Your task to perform on an android device: manage bookmarks in the chrome app Image 0: 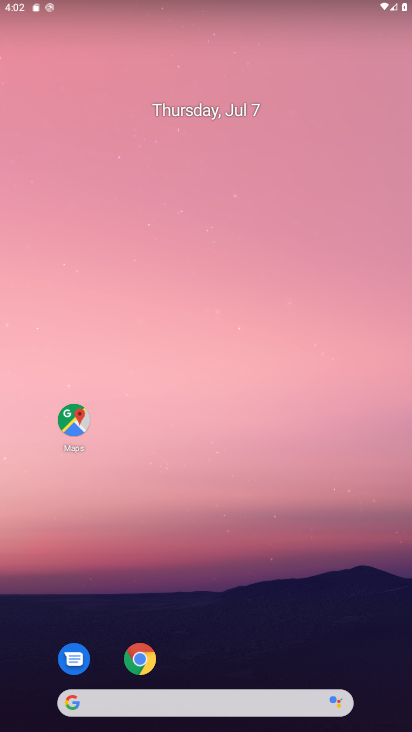
Step 0: drag from (331, 610) to (334, 205)
Your task to perform on an android device: manage bookmarks in the chrome app Image 1: 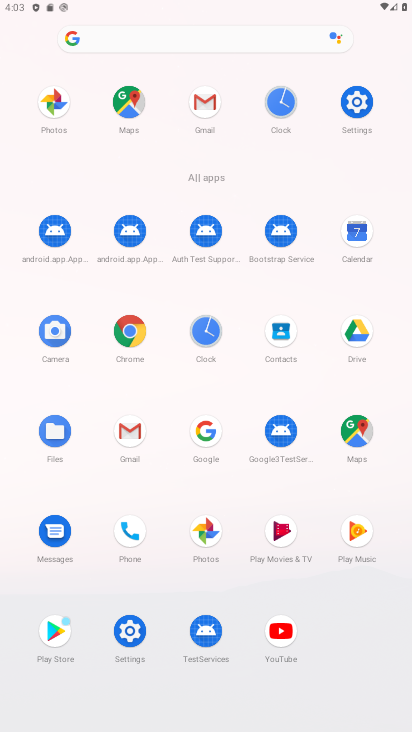
Step 1: click (133, 332)
Your task to perform on an android device: manage bookmarks in the chrome app Image 2: 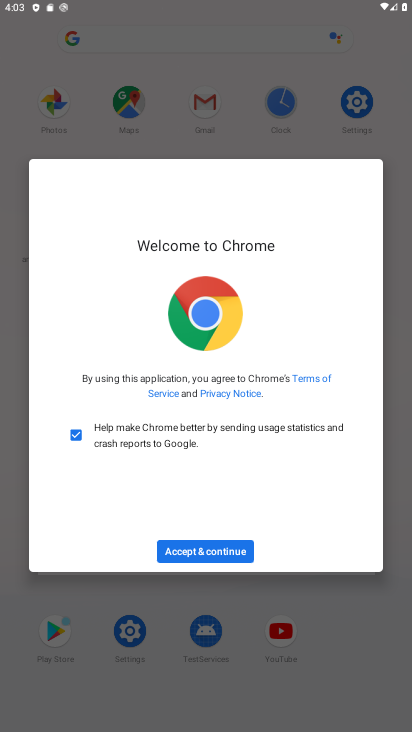
Step 2: click (227, 550)
Your task to perform on an android device: manage bookmarks in the chrome app Image 3: 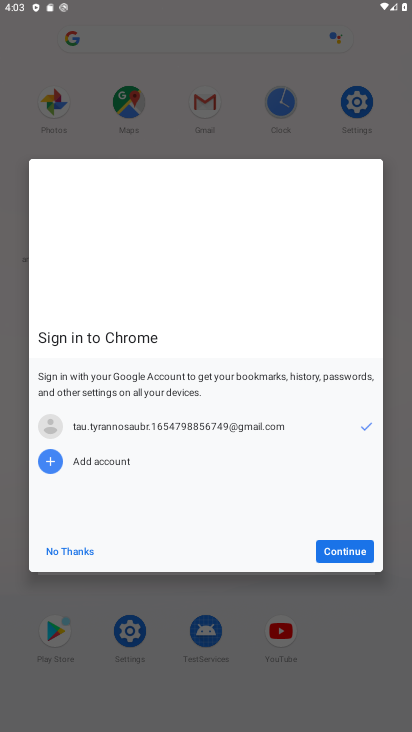
Step 3: click (332, 549)
Your task to perform on an android device: manage bookmarks in the chrome app Image 4: 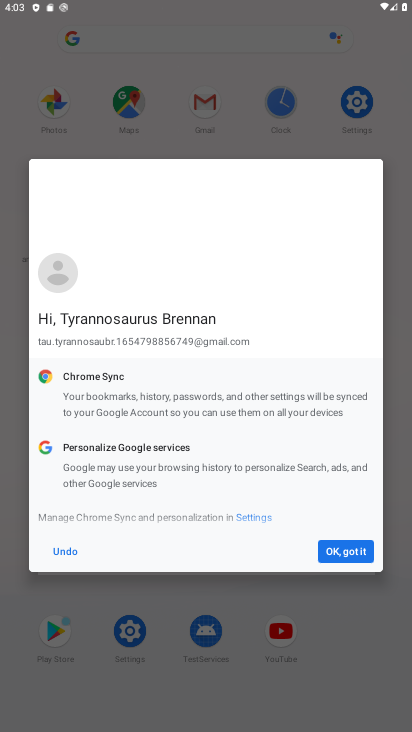
Step 4: click (350, 553)
Your task to perform on an android device: manage bookmarks in the chrome app Image 5: 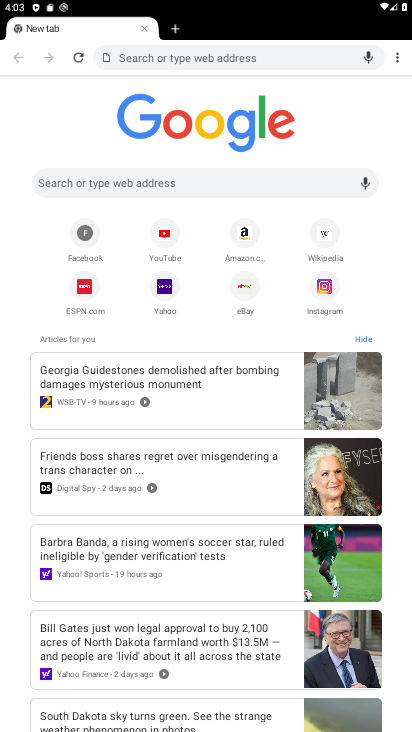
Step 5: click (393, 57)
Your task to perform on an android device: manage bookmarks in the chrome app Image 6: 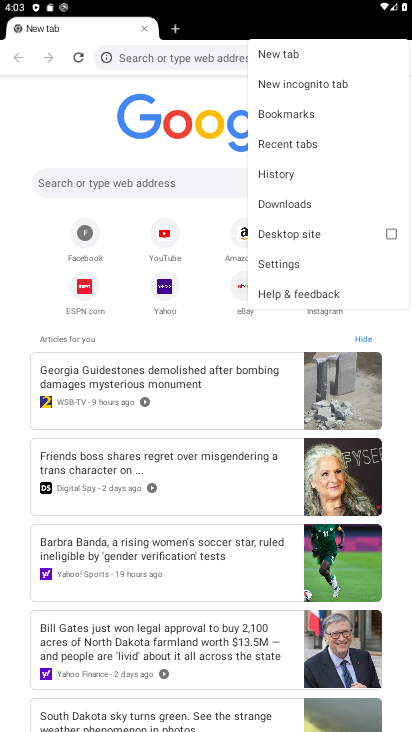
Step 6: click (312, 116)
Your task to perform on an android device: manage bookmarks in the chrome app Image 7: 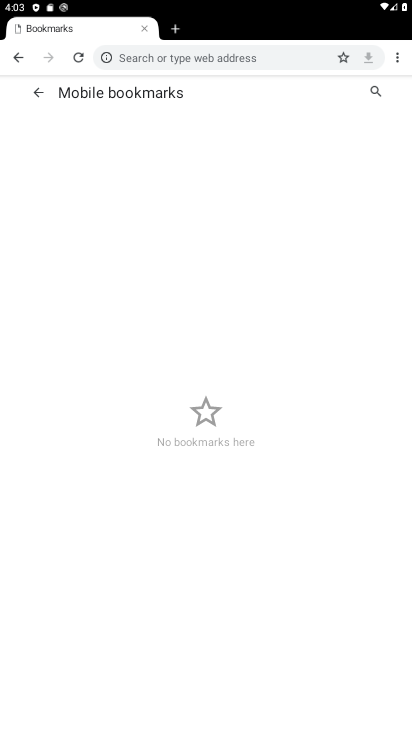
Step 7: task complete